Your task to perform on an android device: Open ESPN.com Image 0: 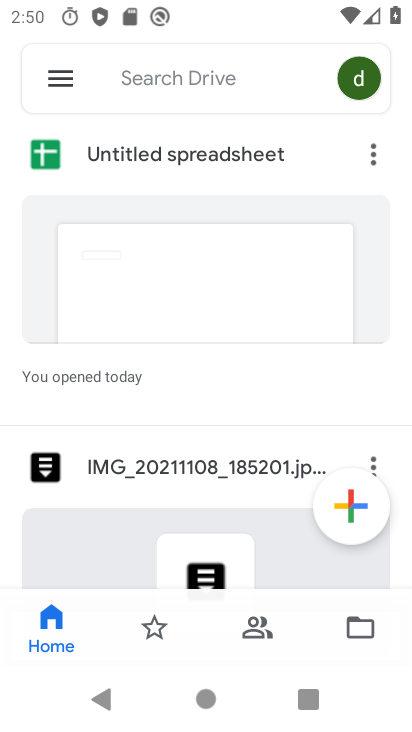
Step 0: press home button
Your task to perform on an android device: Open ESPN.com Image 1: 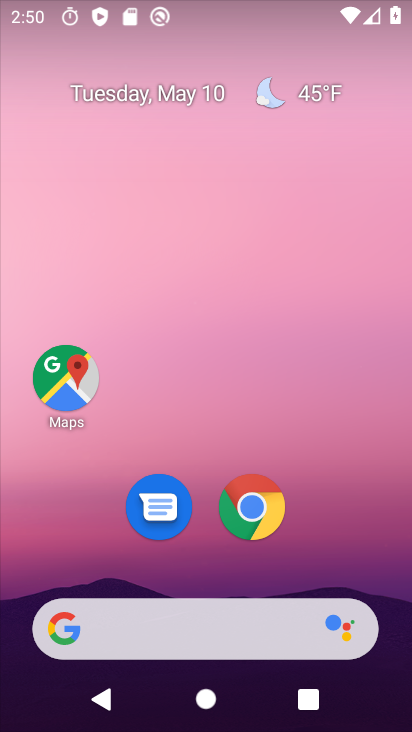
Step 1: click (268, 504)
Your task to perform on an android device: Open ESPN.com Image 2: 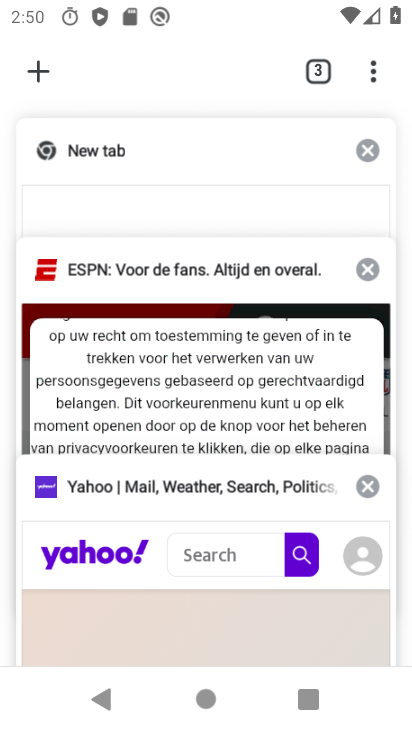
Step 2: click (33, 72)
Your task to perform on an android device: Open ESPN.com Image 3: 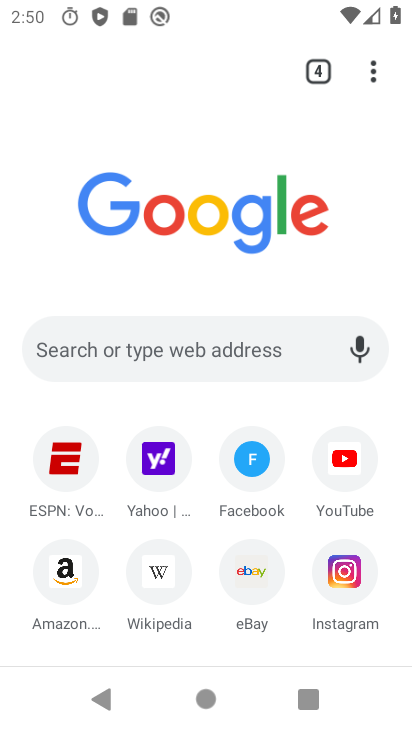
Step 3: click (81, 483)
Your task to perform on an android device: Open ESPN.com Image 4: 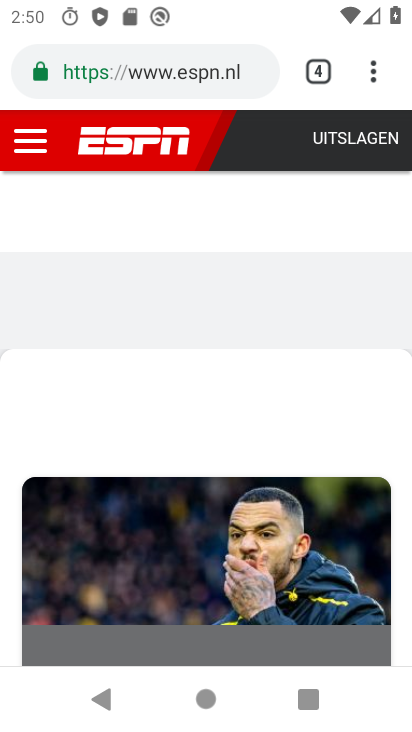
Step 4: drag from (186, 576) to (145, 265)
Your task to perform on an android device: Open ESPN.com Image 5: 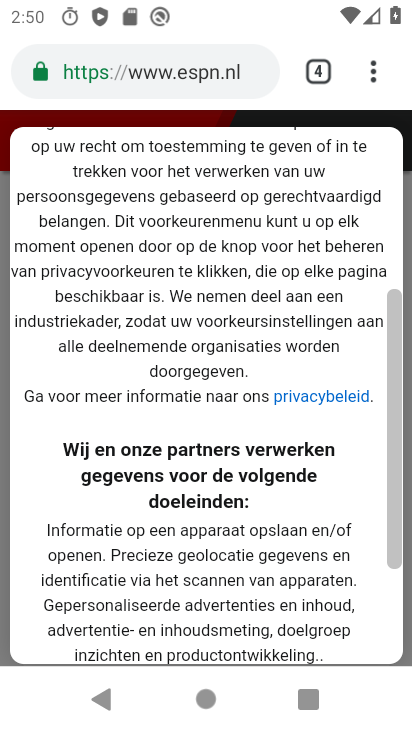
Step 5: drag from (209, 614) to (184, 318)
Your task to perform on an android device: Open ESPN.com Image 6: 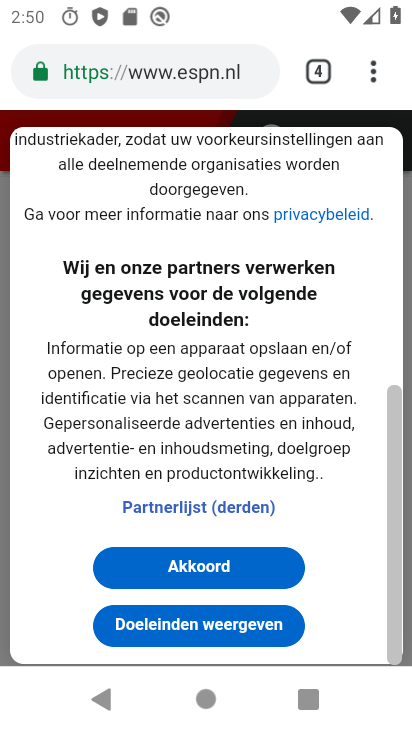
Step 6: drag from (296, 647) to (246, 309)
Your task to perform on an android device: Open ESPN.com Image 7: 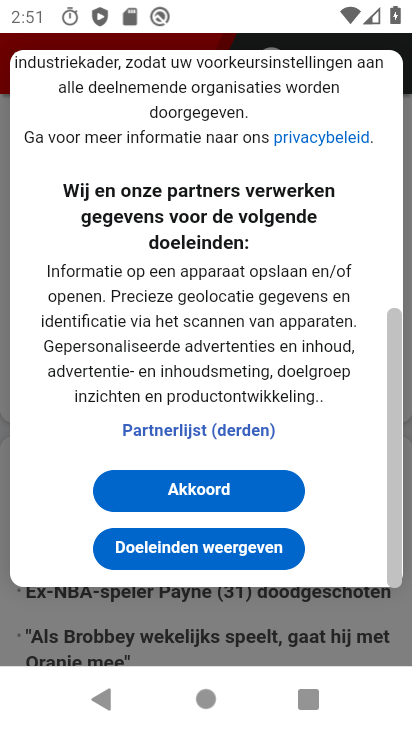
Step 7: click (256, 306)
Your task to perform on an android device: Open ESPN.com Image 8: 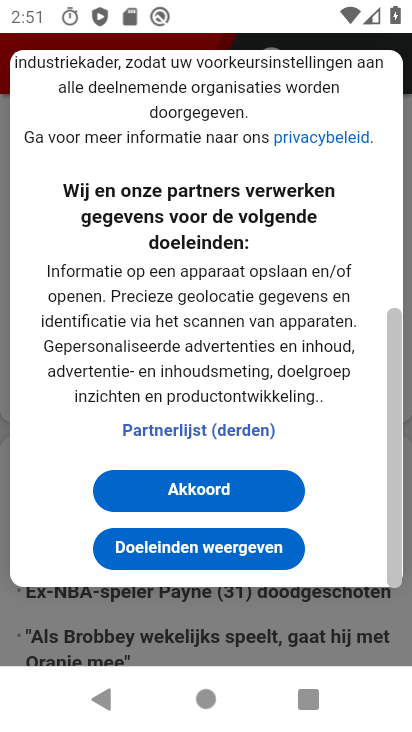
Step 8: task complete